Your task to perform on an android device: Open calendar and show me the fourth week of next month Image 0: 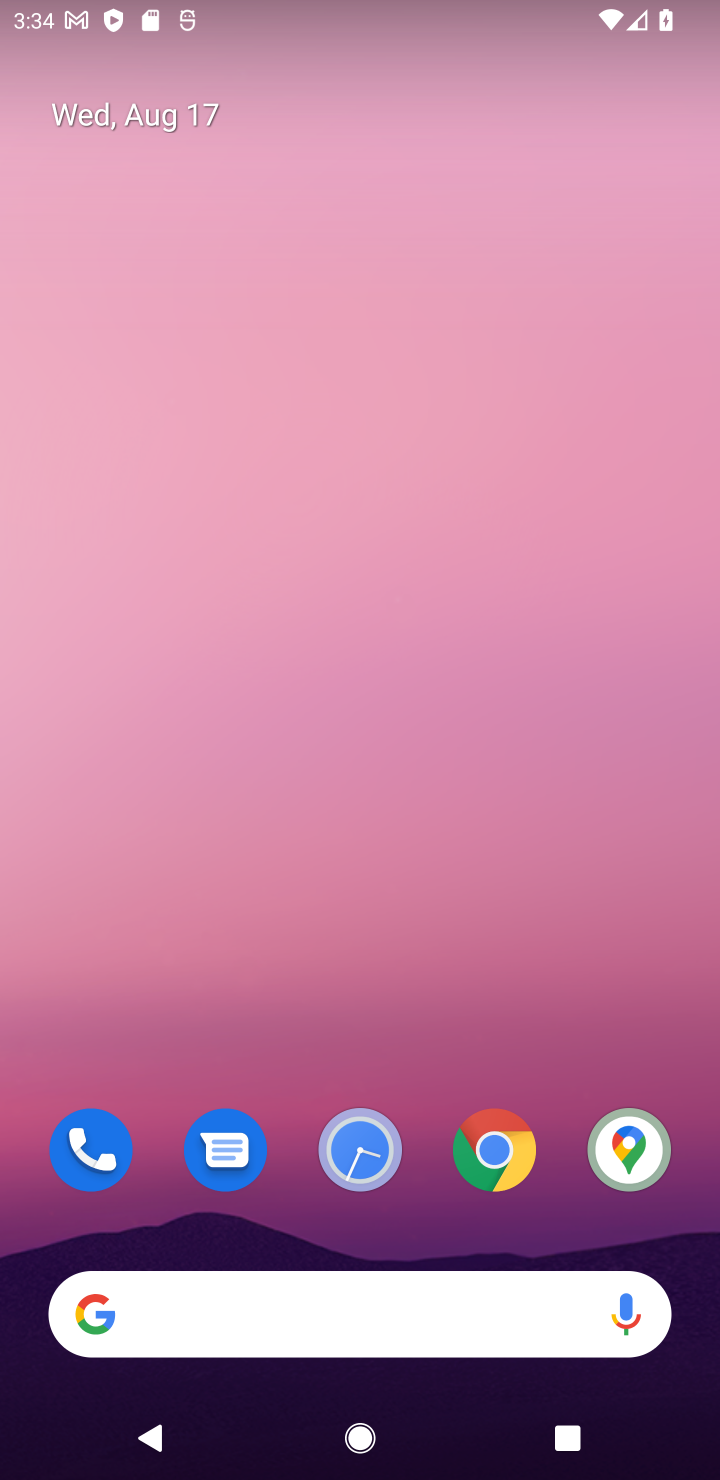
Step 0: drag from (437, 540) to (253, 10)
Your task to perform on an android device: Open calendar and show me the fourth week of next month Image 1: 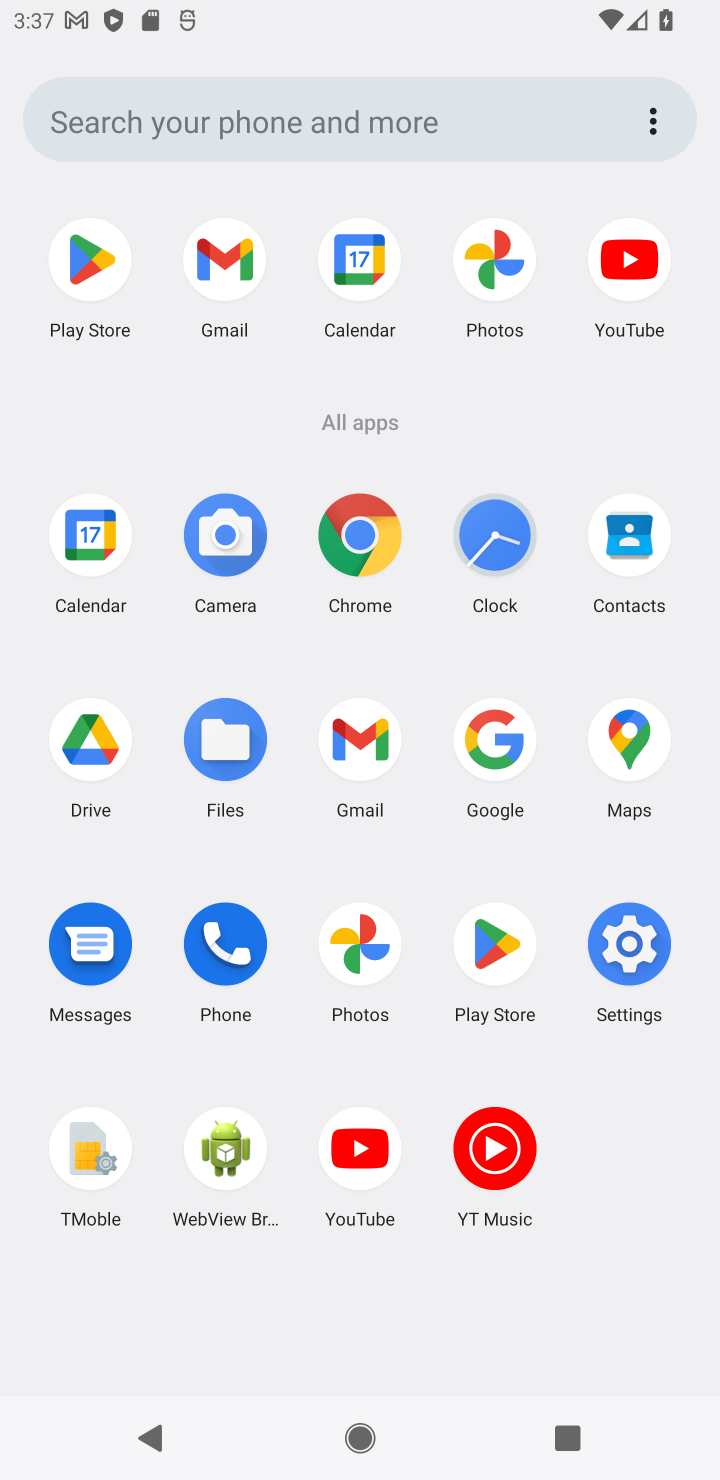
Step 1: click (103, 532)
Your task to perform on an android device: Open calendar and show me the fourth week of next month Image 2: 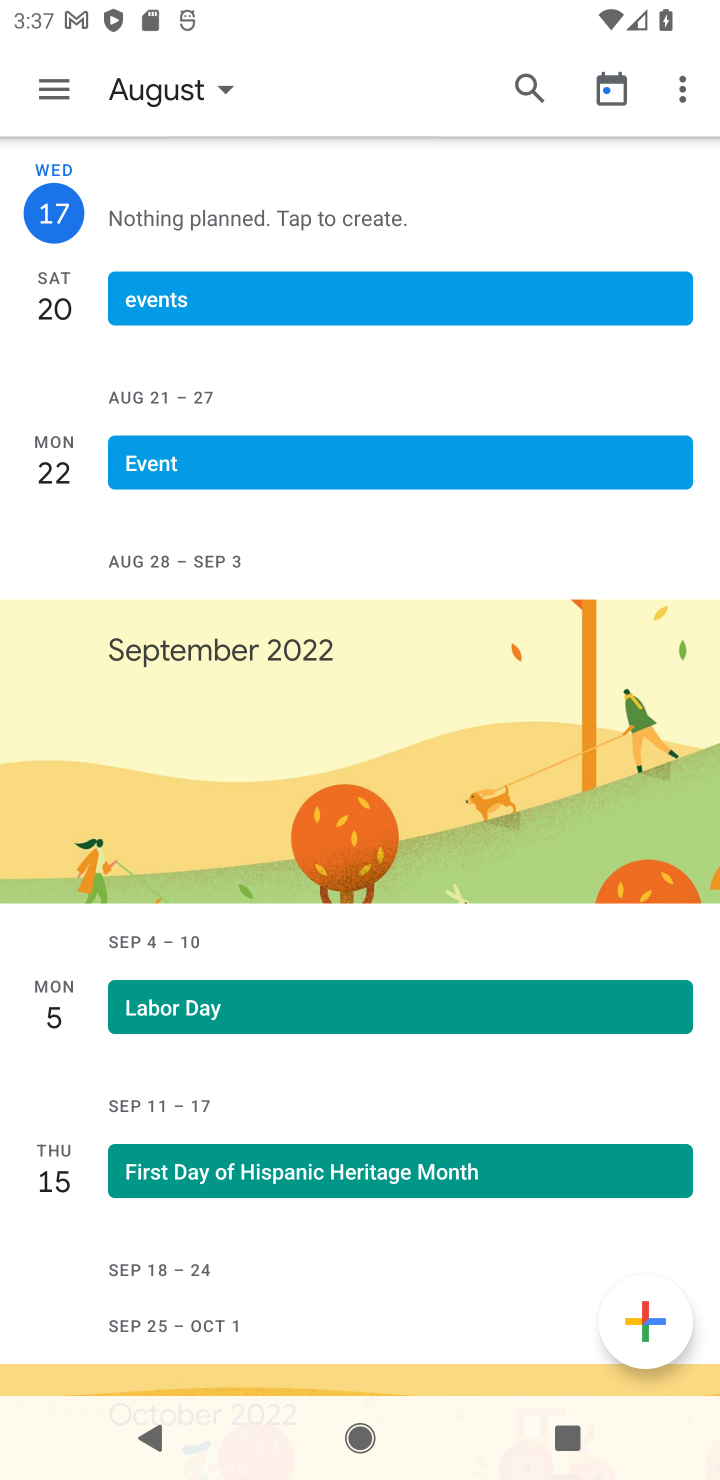
Step 2: click (156, 85)
Your task to perform on an android device: Open calendar and show me the fourth week of next month Image 3: 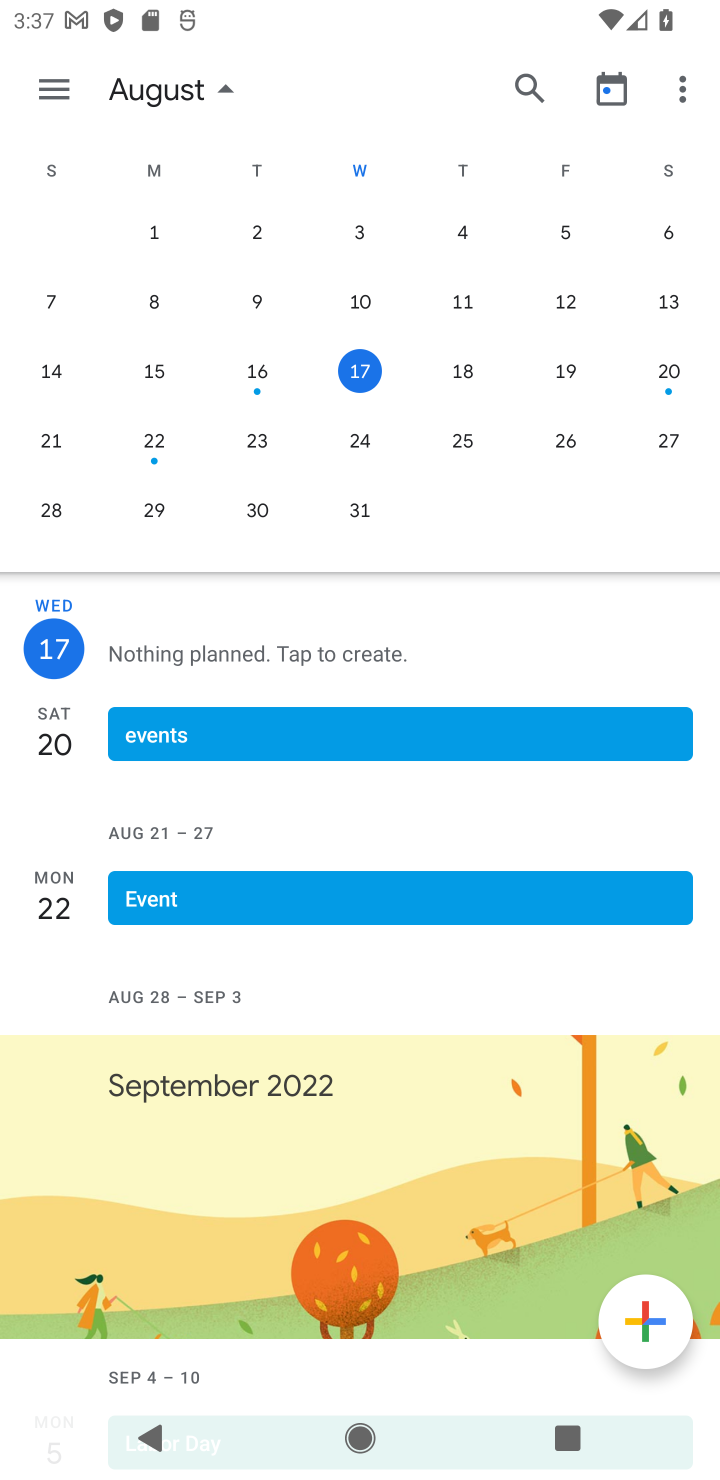
Step 3: drag from (630, 316) to (15, 385)
Your task to perform on an android device: Open calendar and show me the fourth week of next month Image 4: 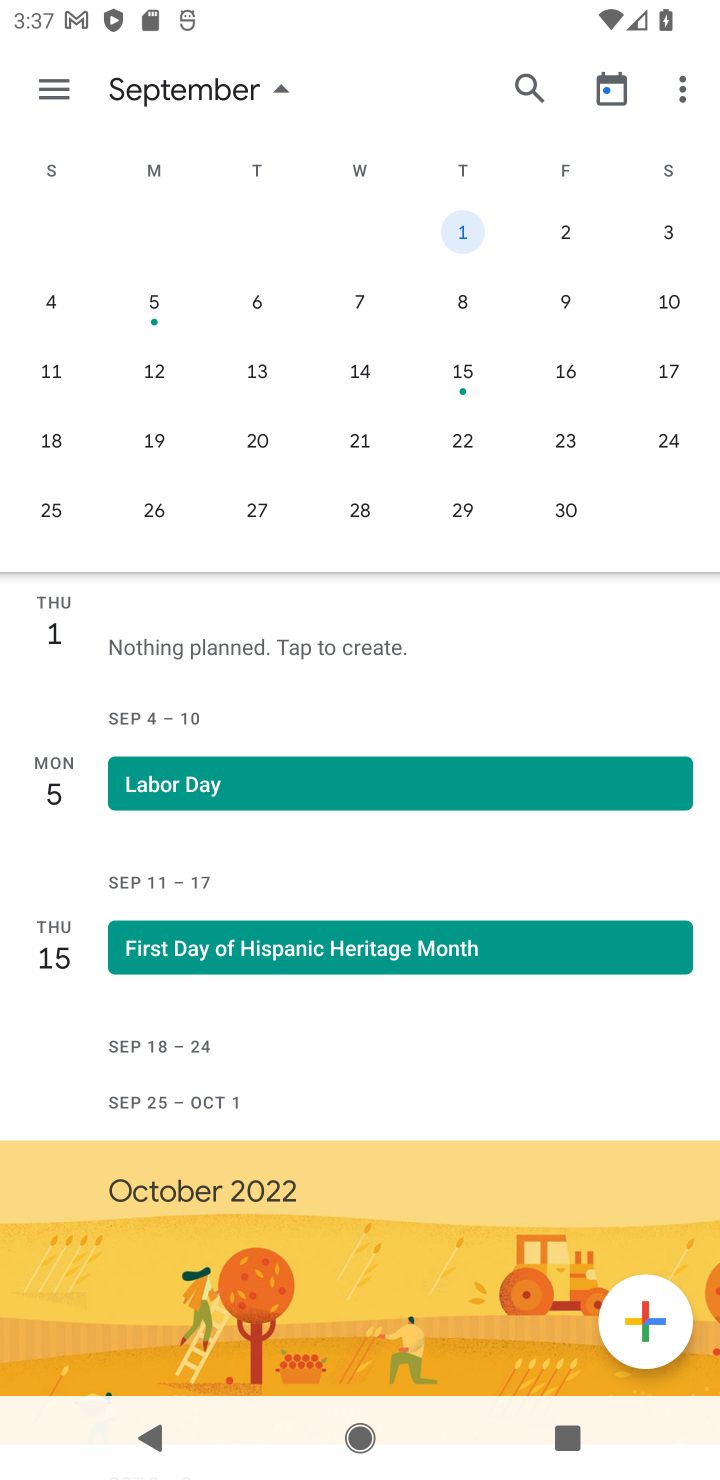
Step 4: click (65, 511)
Your task to perform on an android device: Open calendar and show me the fourth week of next month Image 5: 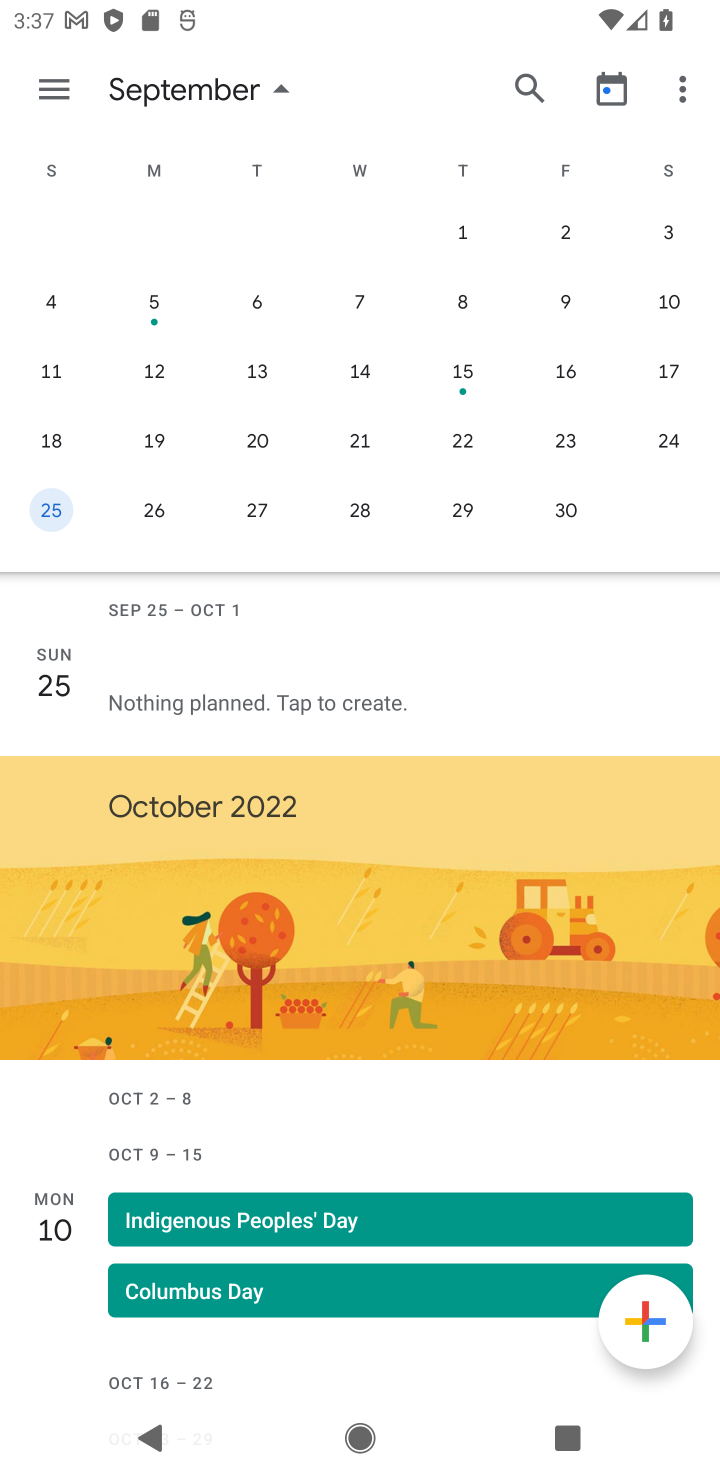
Step 5: task complete